Your task to perform on an android device: Open the stopwatch Image 0: 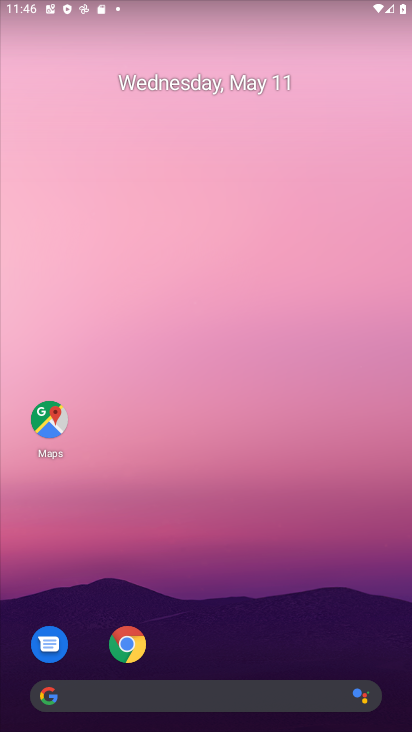
Step 0: drag from (283, 637) to (261, 148)
Your task to perform on an android device: Open the stopwatch Image 1: 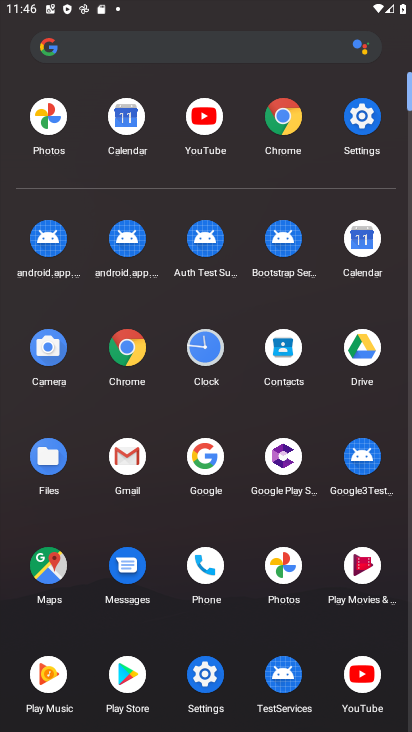
Step 1: click (214, 347)
Your task to perform on an android device: Open the stopwatch Image 2: 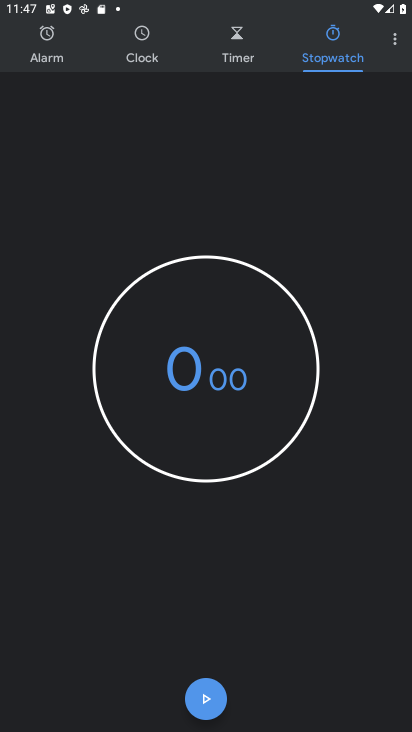
Step 2: task complete